Your task to perform on an android device: snooze an email in the gmail app Image 0: 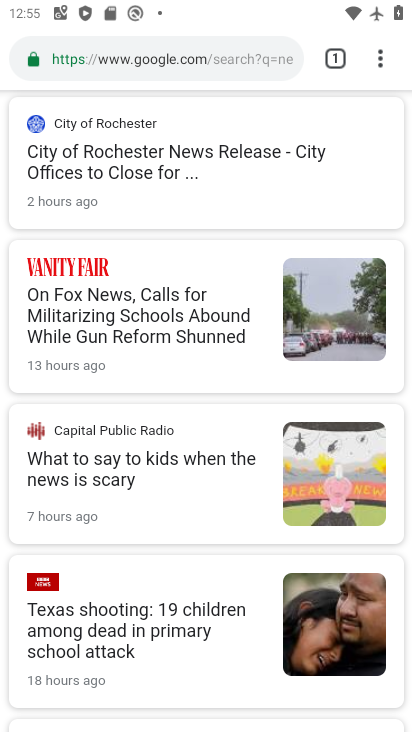
Step 0: press home button
Your task to perform on an android device: snooze an email in the gmail app Image 1: 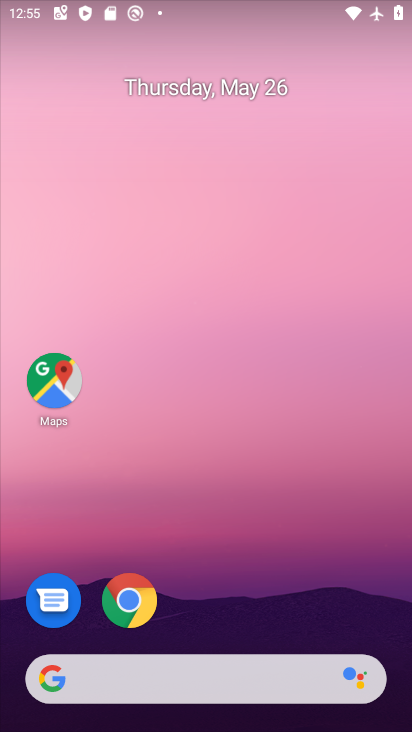
Step 1: drag from (257, 630) to (292, 154)
Your task to perform on an android device: snooze an email in the gmail app Image 2: 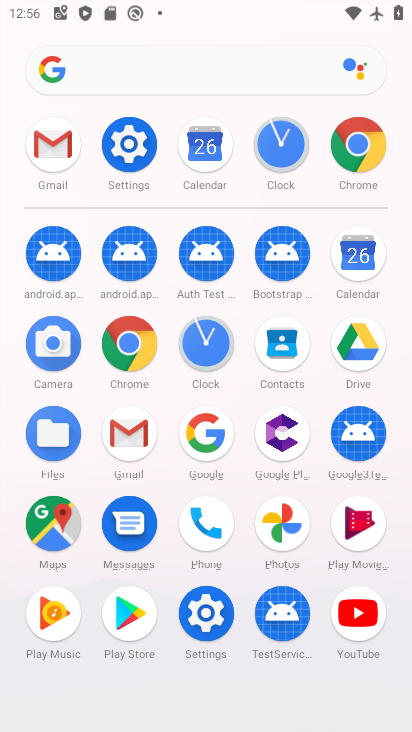
Step 2: click (57, 146)
Your task to perform on an android device: snooze an email in the gmail app Image 3: 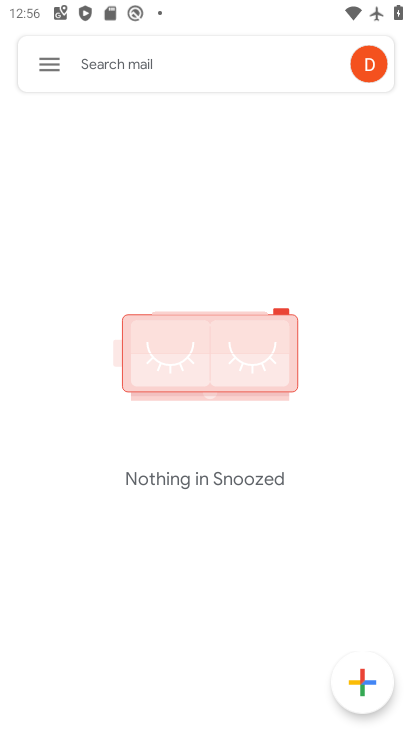
Step 3: click (52, 74)
Your task to perform on an android device: snooze an email in the gmail app Image 4: 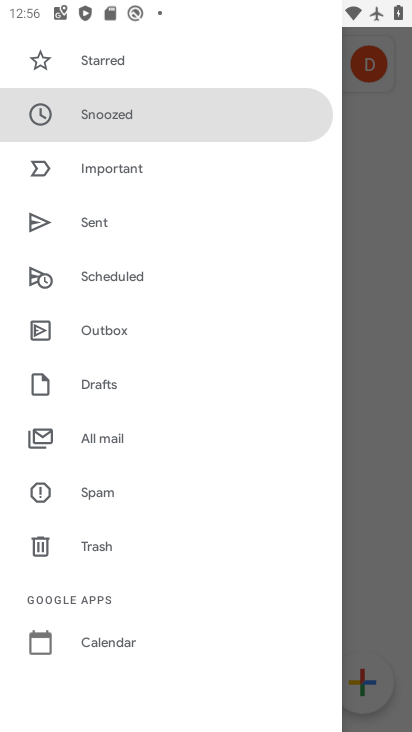
Step 4: drag from (135, 222) to (131, 358)
Your task to perform on an android device: snooze an email in the gmail app Image 5: 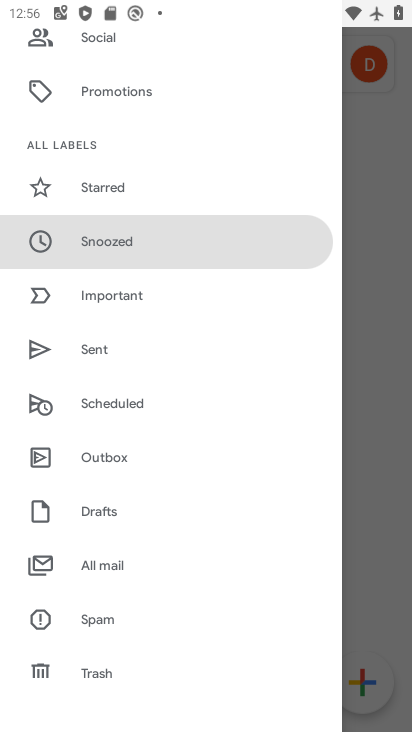
Step 5: click (106, 557)
Your task to perform on an android device: snooze an email in the gmail app Image 6: 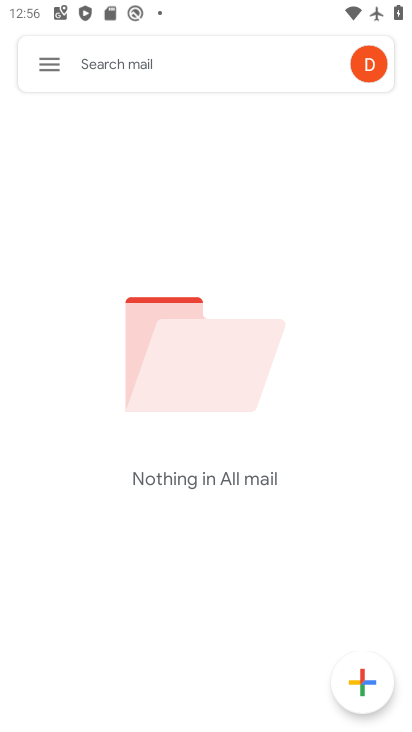
Step 6: task complete